Your task to perform on an android device: search for starred emails in the gmail app Image 0: 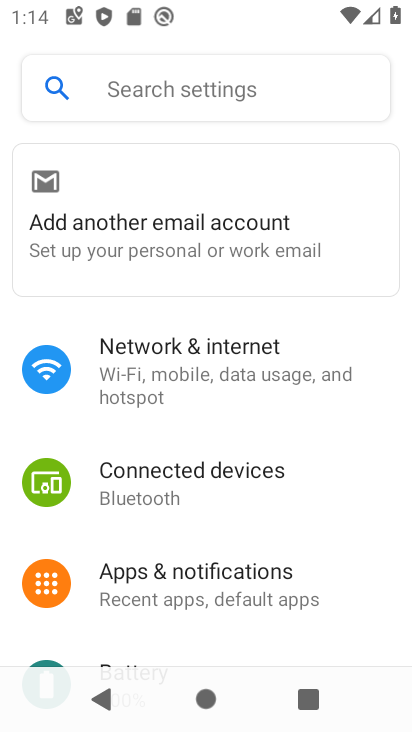
Step 0: press home button
Your task to perform on an android device: search for starred emails in the gmail app Image 1: 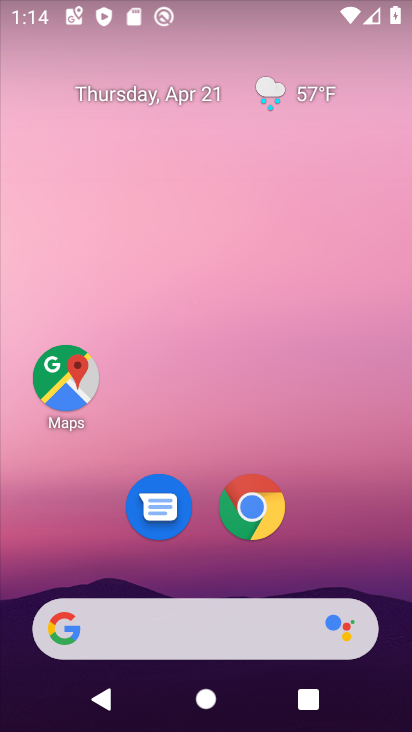
Step 1: drag from (198, 486) to (274, 12)
Your task to perform on an android device: search for starred emails in the gmail app Image 2: 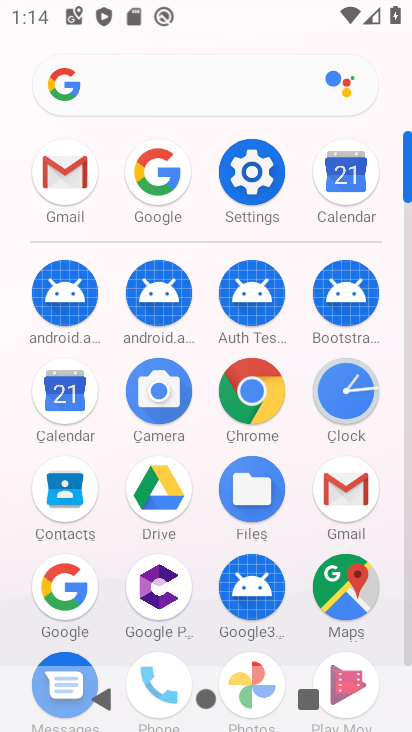
Step 2: click (350, 485)
Your task to perform on an android device: search for starred emails in the gmail app Image 3: 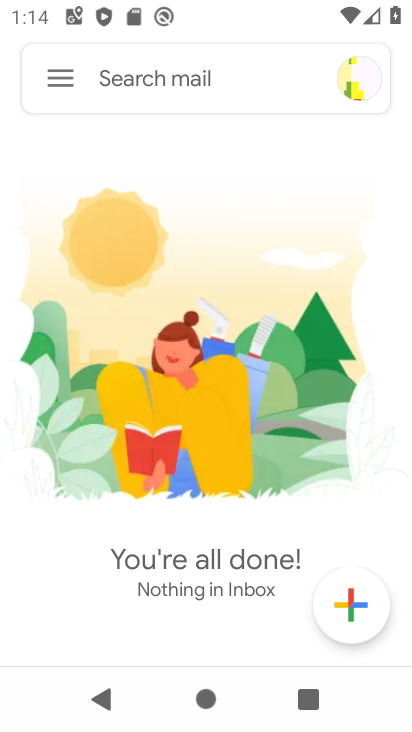
Step 3: click (59, 80)
Your task to perform on an android device: search for starred emails in the gmail app Image 4: 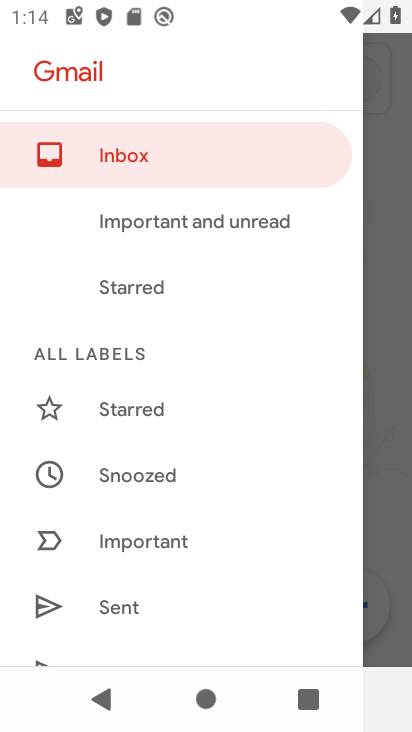
Step 4: click (132, 404)
Your task to perform on an android device: search for starred emails in the gmail app Image 5: 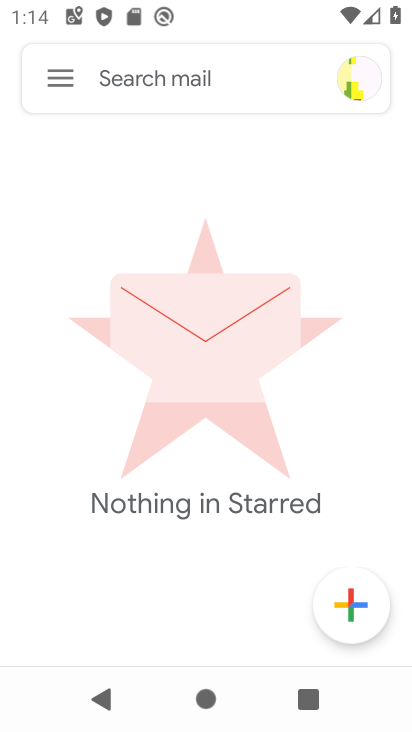
Step 5: task complete